Your task to perform on an android device: turn off location history Image 0: 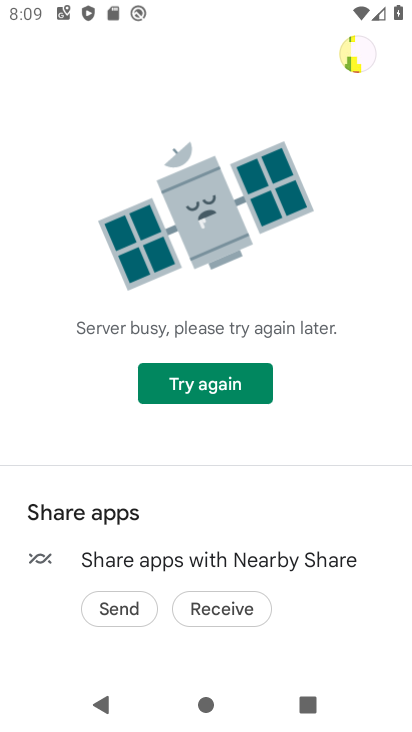
Step 0: press home button
Your task to perform on an android device: turn off location history Image 1: 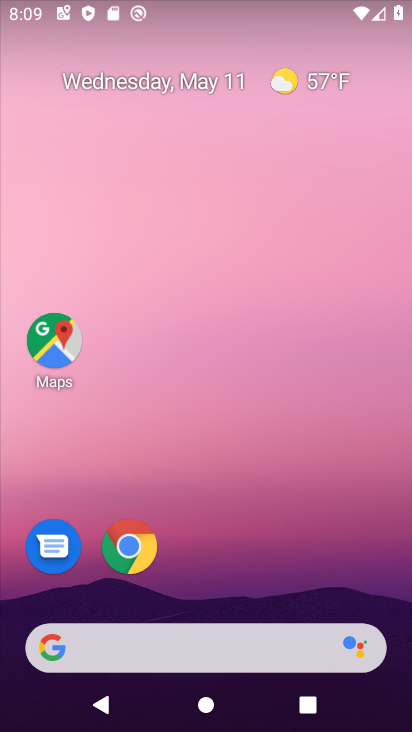
Step 1: drag from (201, 594) to (223, 227)
Your task to perform on an android device: turn off location history Image 2: 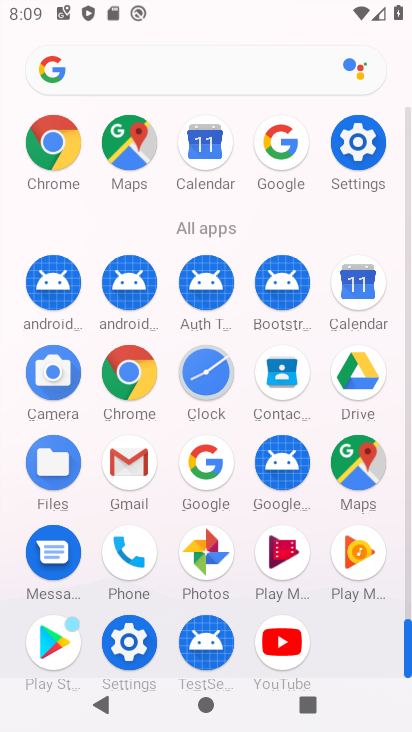
Step 2: click (349, 131)
Your task to perform on an android device: turn off location history Image 3: 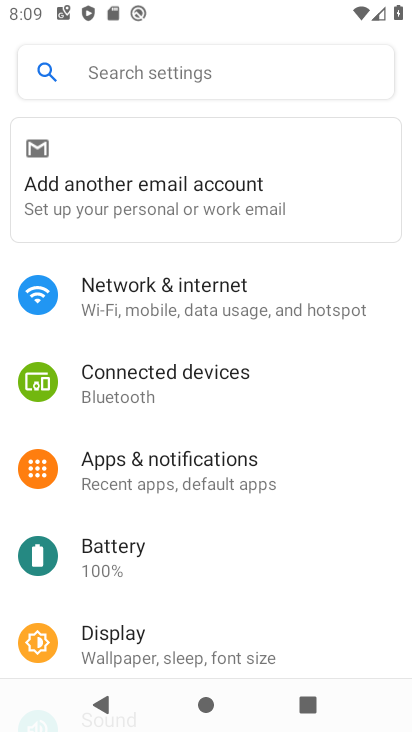
Step 3: drag from (239, 565) to (298, 333)
Your task to perform on an android device: turn off location history Image 4: 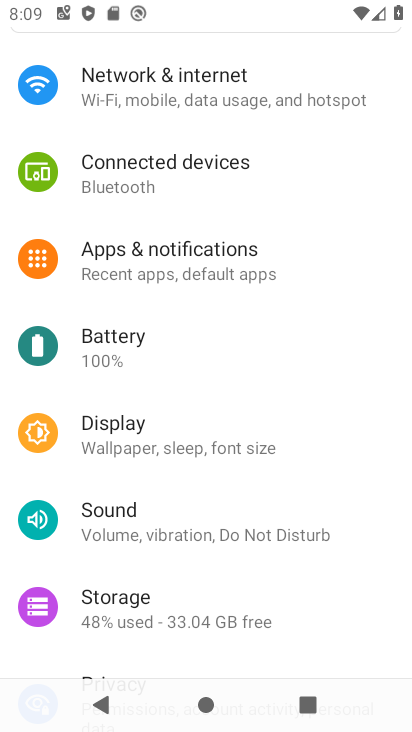
Step 4: drag from (193, 624) to (200, 373)
Your task to perform on an android device: turn off location history Image 5: 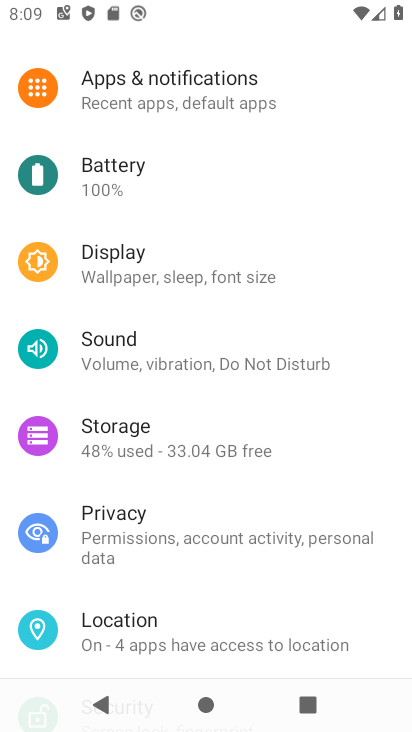
Step 5: click (167, 632)
Your task to perform on an android device: turn off location history Image 6: 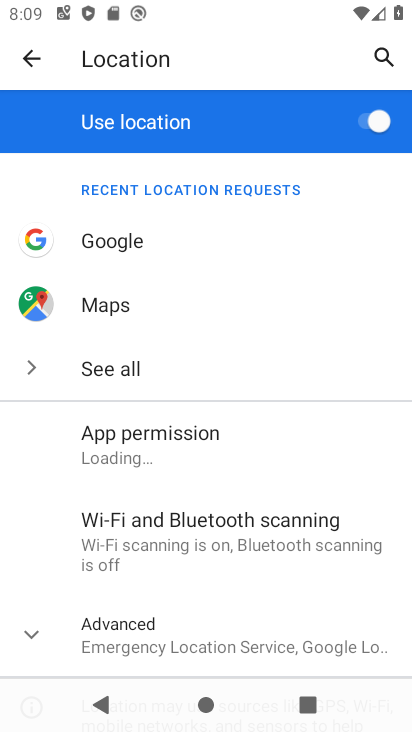
Step 6: drag from (239, 588) to (261, 306)
Your task to perform on an android device: turn off location history Image 7: 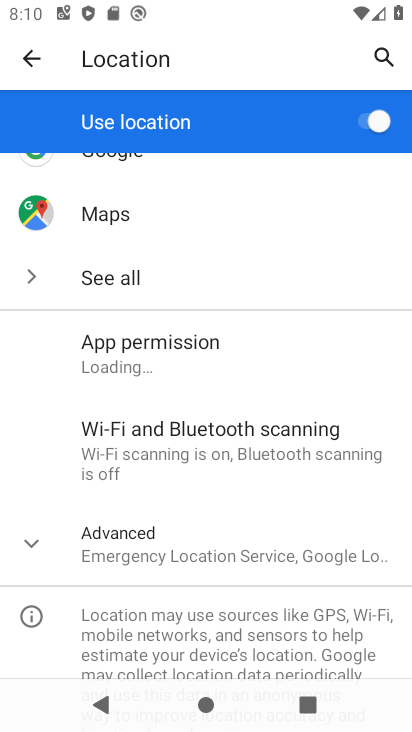
Step 7: click (225, 532)
Your task to perform on an android device: turn off location history Image 8: 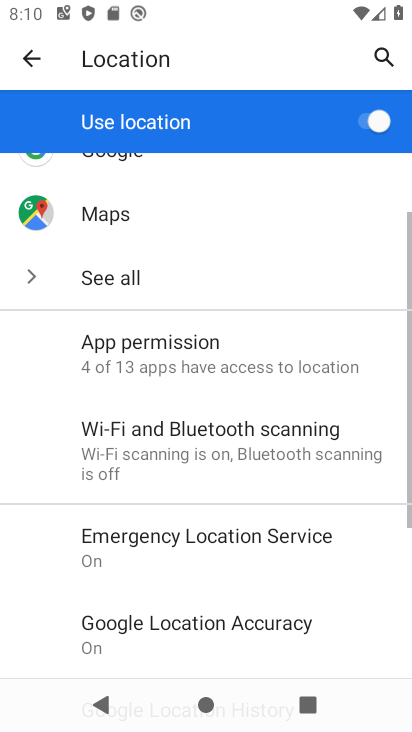
Step 8: drag from (234, 600) to (247, 408)
Your task to perform on an android device: turn off location history Image 9: 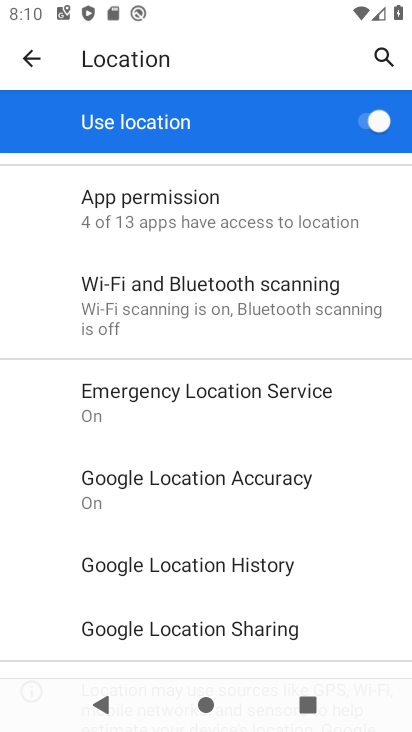
Step 9: click (247, 556)
Your task to perform on an android device: turn off location history Image 10: 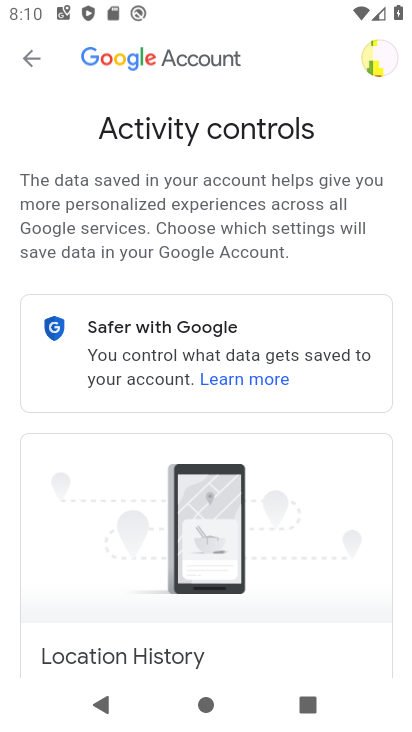
Step 10: task complete